Your task to perform on an android device: open a new tab in the chrome app Image 0: 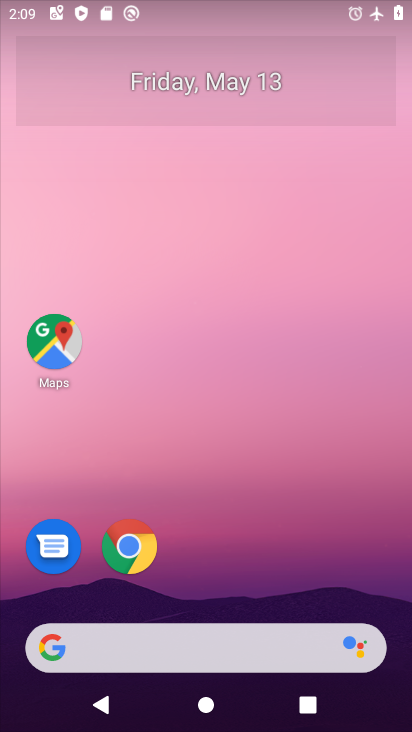
Step 0: click (141, 543)
Your task to perform on an android device: open a new tab in the chrome app Image 1: 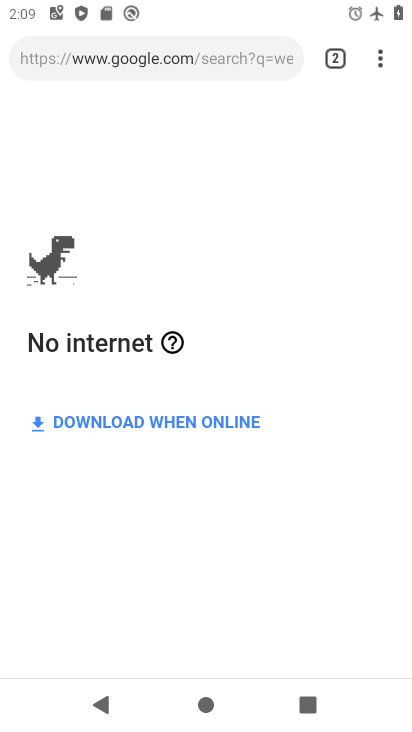
Step 1: task complete